Your task to perform on an android device: Clear the shopping cart on ebay. Search for "razer deathadder" on ebay, select the first entry, and add it to the cart. Image 0: 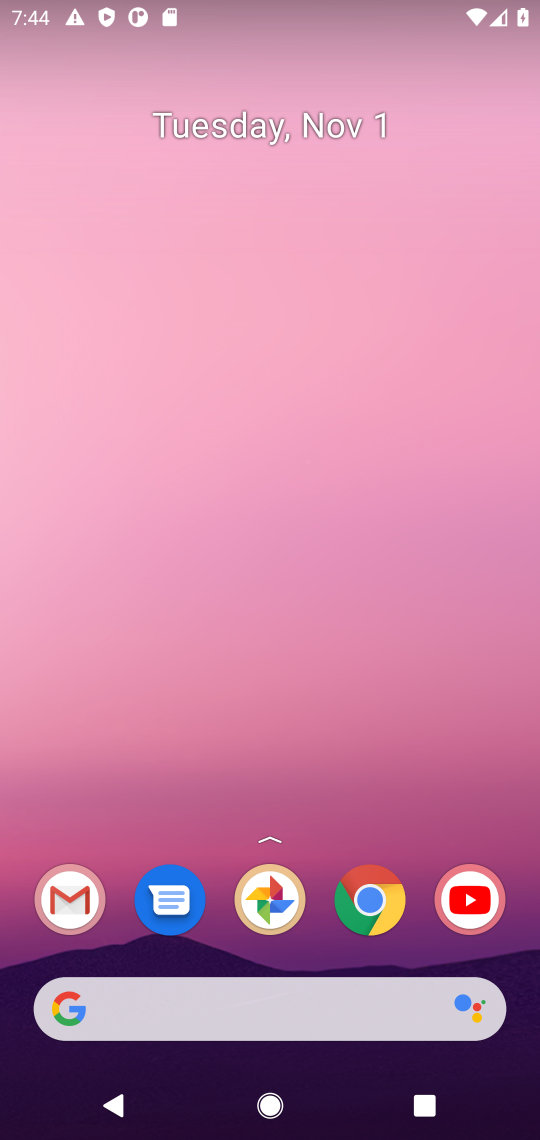
Step 0: drag from (449, 273) to (458, 198)
Your task to perform on an android device: Clear the shopping cart on ebay. Search for "razer deathadder" on ebay, select the first entry, and add it to the cart. Image 1: 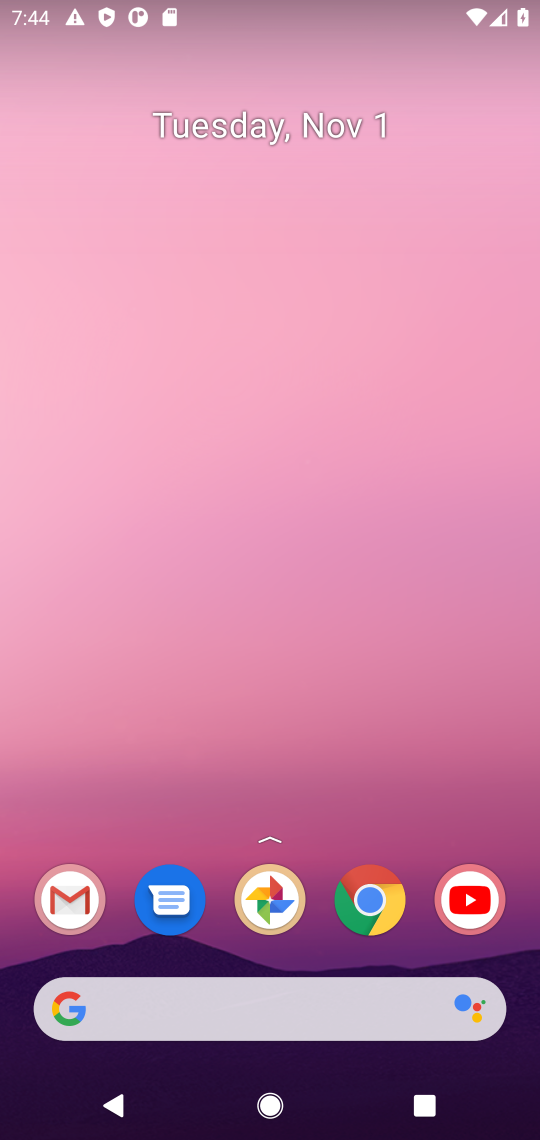
Step 1: drag from (315, 778) to (255, 12)
Your task to perform on an android device: Clear the shopping cart on ebay. Search for "razer deathadder" on ebay, select the first entry, and add it to the cart. Image 2: 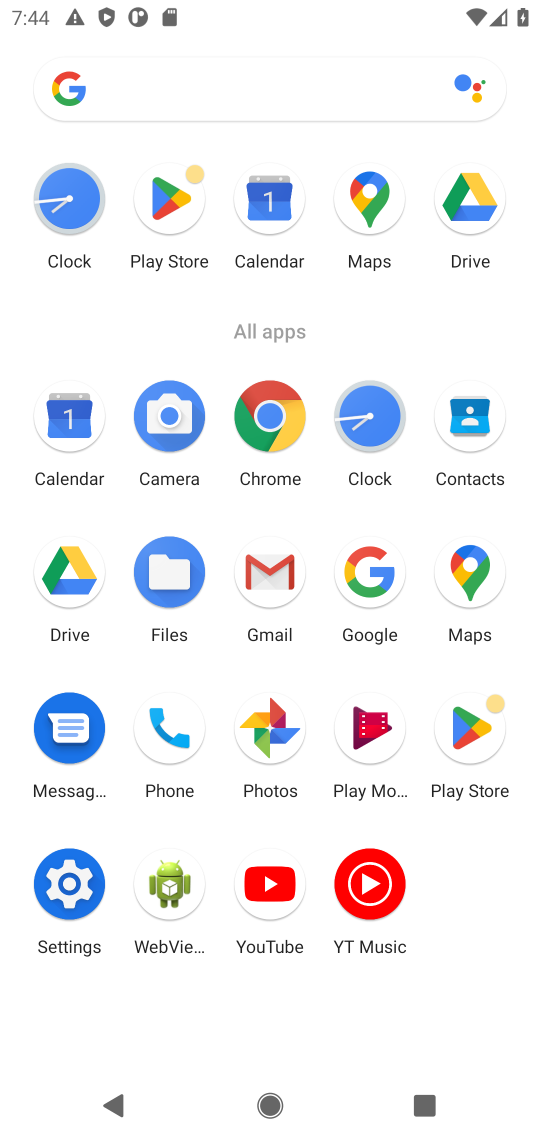
Step 2: click (273, 410)
Your task to perform on an android device: Clear the shopping cart on ebay. Search for "razer deathadder" on ebay, select the first entry, and add it to the cart. Image 3: 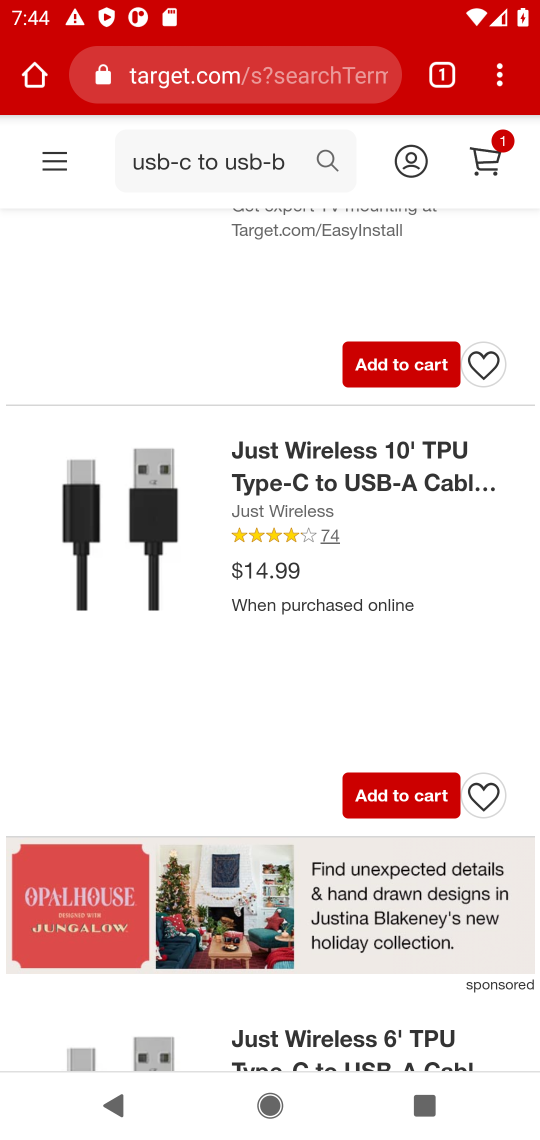
Step 3: click (328, 76)
Your task to perform on an android device: Clear the shopping cart on ebay. Search for "razer deathadder" on ebay, select the first entry, and add it to the cart. Image 4: 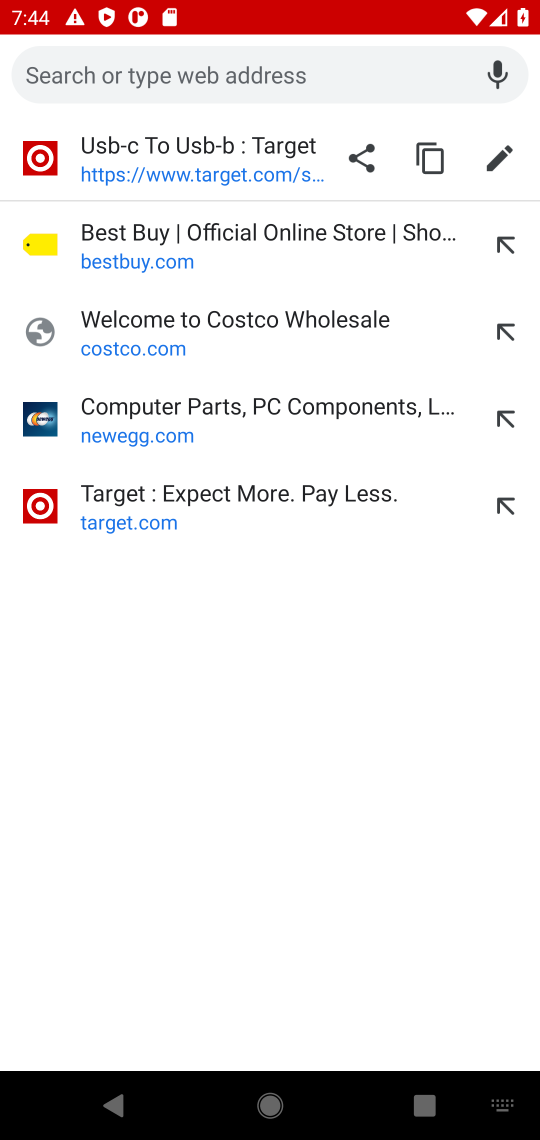
Step 4: type "ebay.com"
Your task to perform on an android device: Clear the shopping cart on ebay. Search for "razer deathadder" on ebay, select the first entry, and add it to the cart. Image 5: 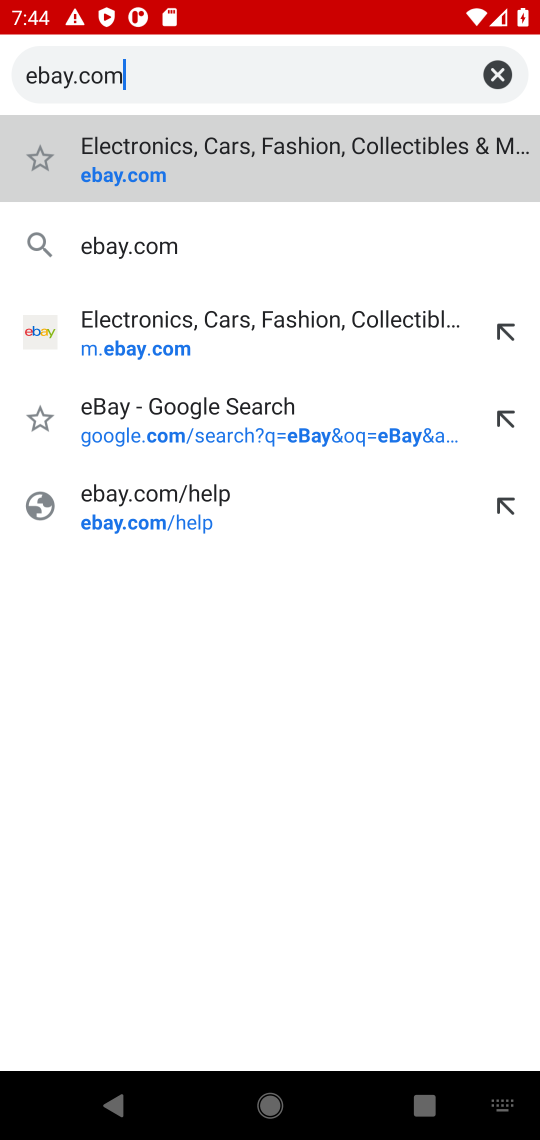
Step 5: click (140, 186)
Your task to perform on an android device: Clear the shopping cart on ebay. Search for "razer deathadder" on ebay, select the first entry, and add it to the cart. Image 6: 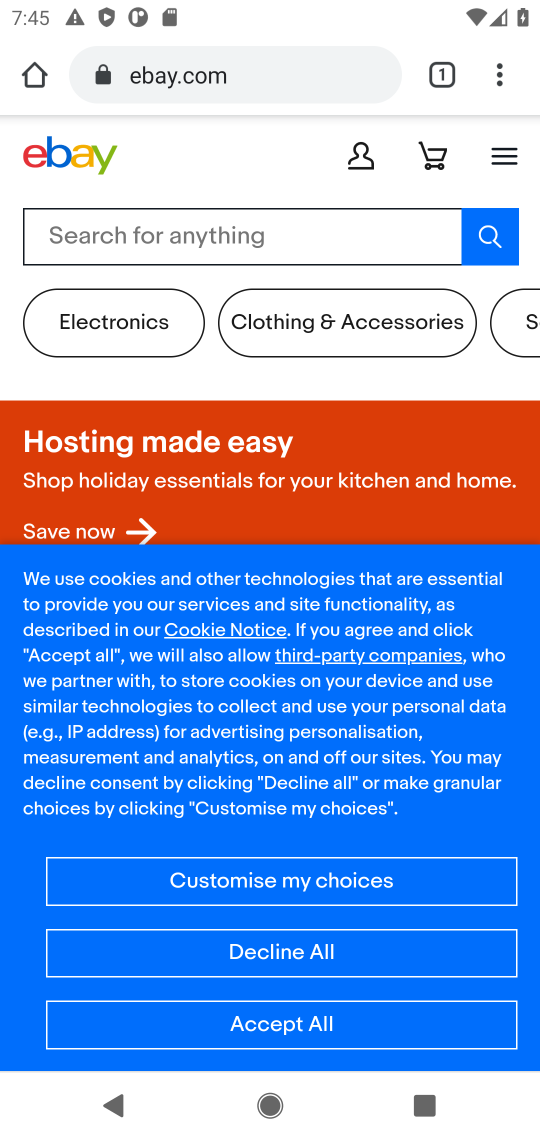
Step 6: click (259, 250)
Your task to perform on an android device: Clear the shopping cart on ebay. Search for "razer deathadder" on ebay, select the first entry, and add it to the cart. Image 7: 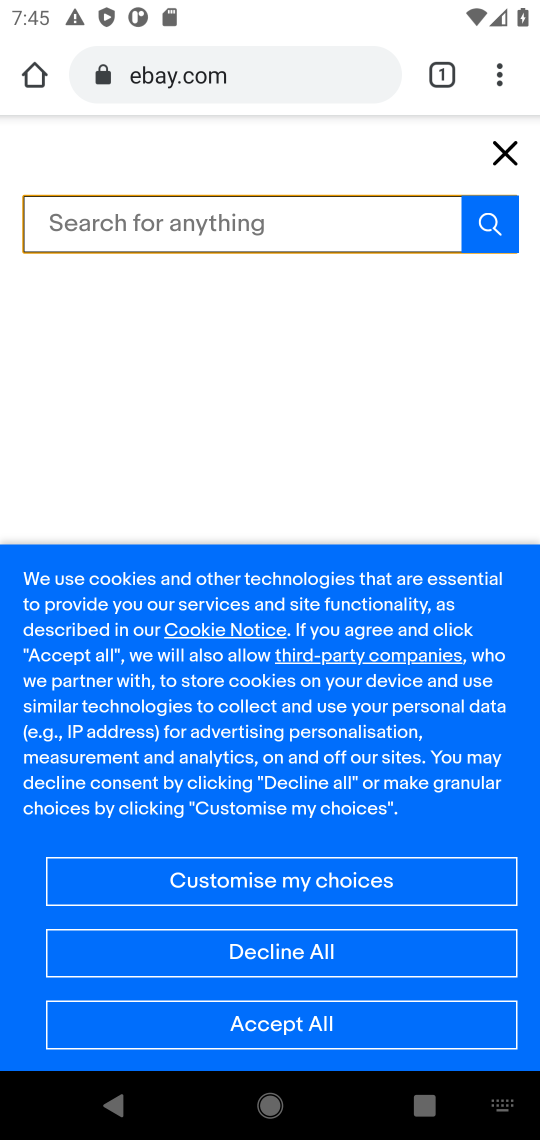
Step 7: type "razer deathhadder"
Your task to perform on an android device: Clear the shopping cart on ebay. Search for "razer deathadder" on ebay, select the first entry, and add it to the cart. Image 8: 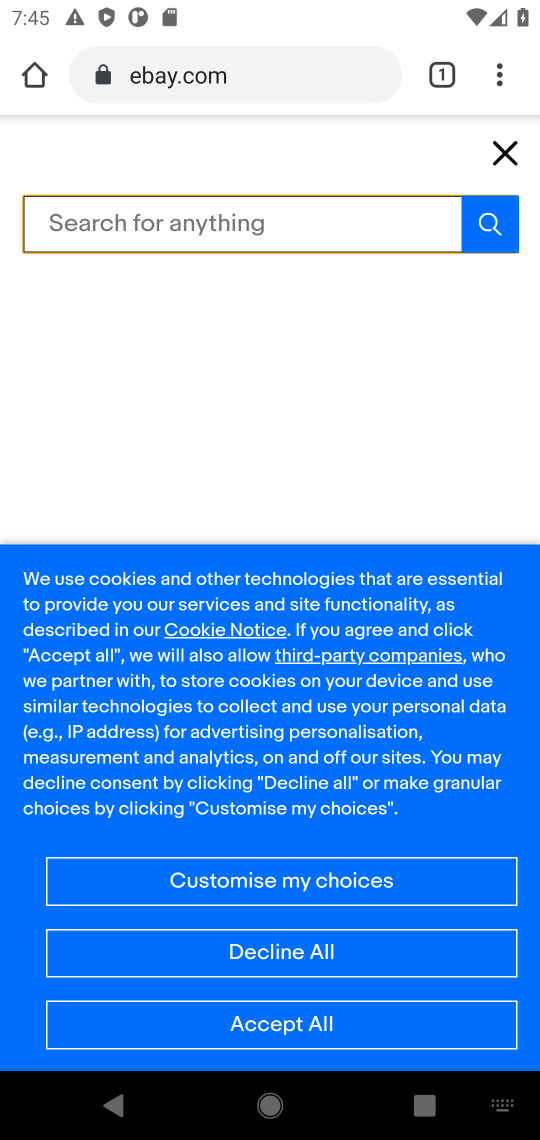
Step 8: click (508, 140)
Your task to perform on an android device: Clear the shopping cart on ebay. Search for "razer deathadder" on ebay, select the first entry, and add it to the cart. Image 9: 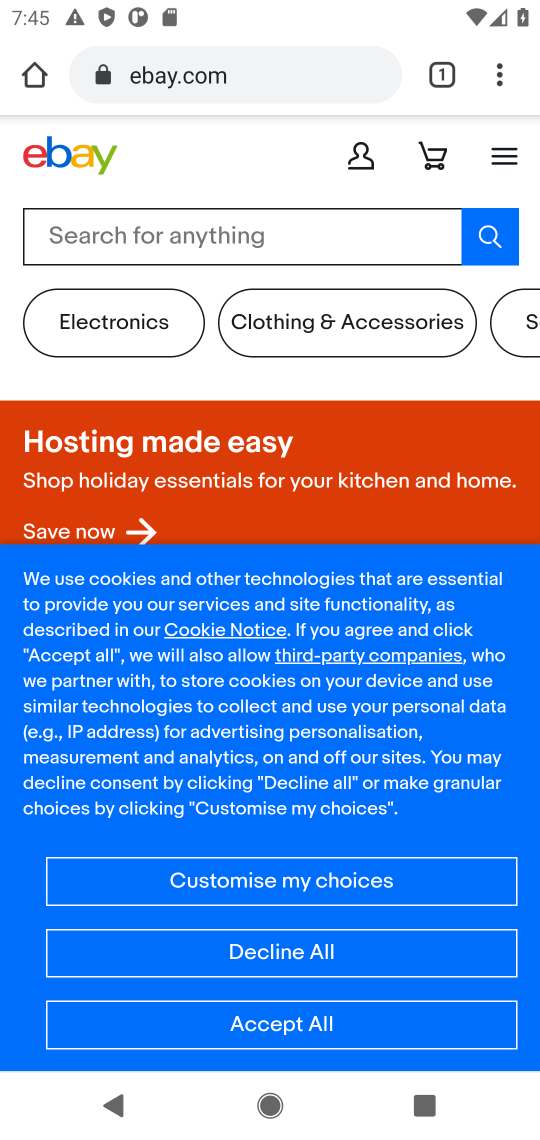
Step 9: click (433, 160)
Your task to perform on an android device: Clear the shopping cart on ebay. Search for "razer deathadder" on ebay, select the first entry, and add it to the cart. Image 10: 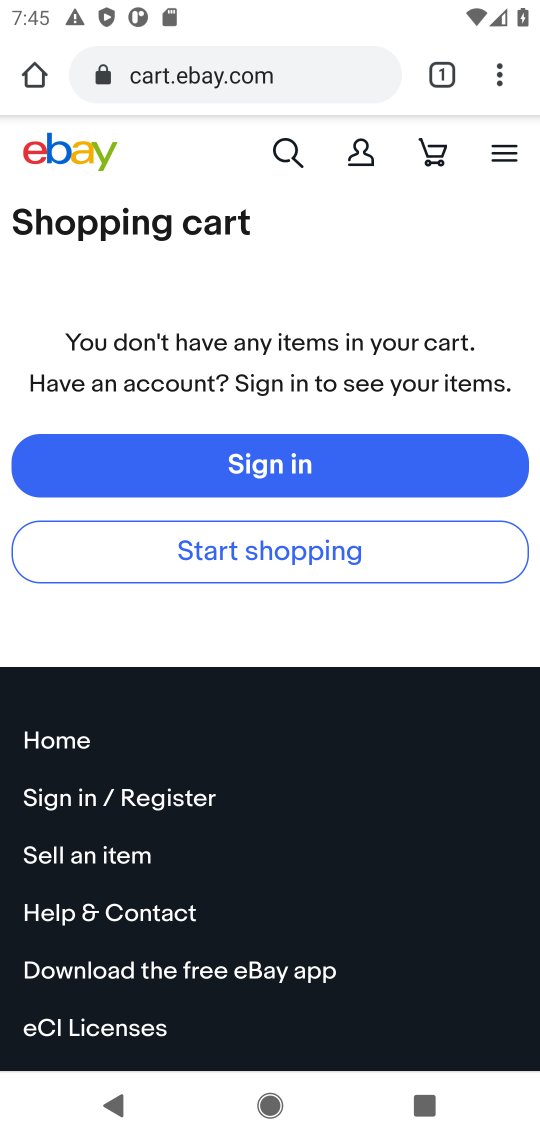
Step 10: click (312, 558)
Your task to perform on an android device: Clear the shopping cart on ebay. Search for "razer deathadder" on ebay, select the first entry, and add it to the cart. Image 11: 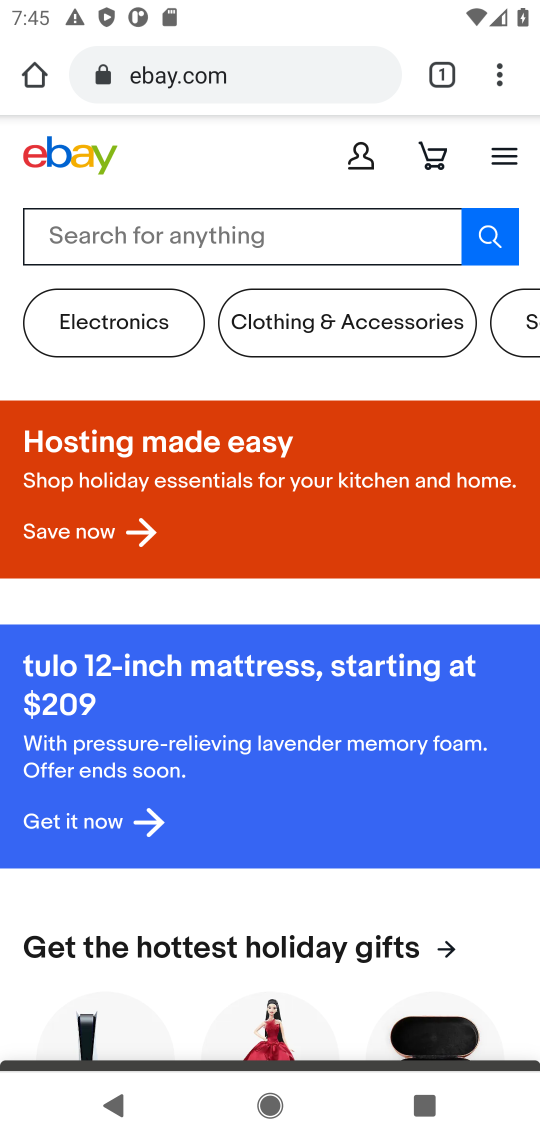
Step 11: click (283, 233)
Your task to perform on an android device: Clear the shopping cart on ebay. Search for "razer deathadder" on ebay, select the first entry, and add it to the cart. Image 12: 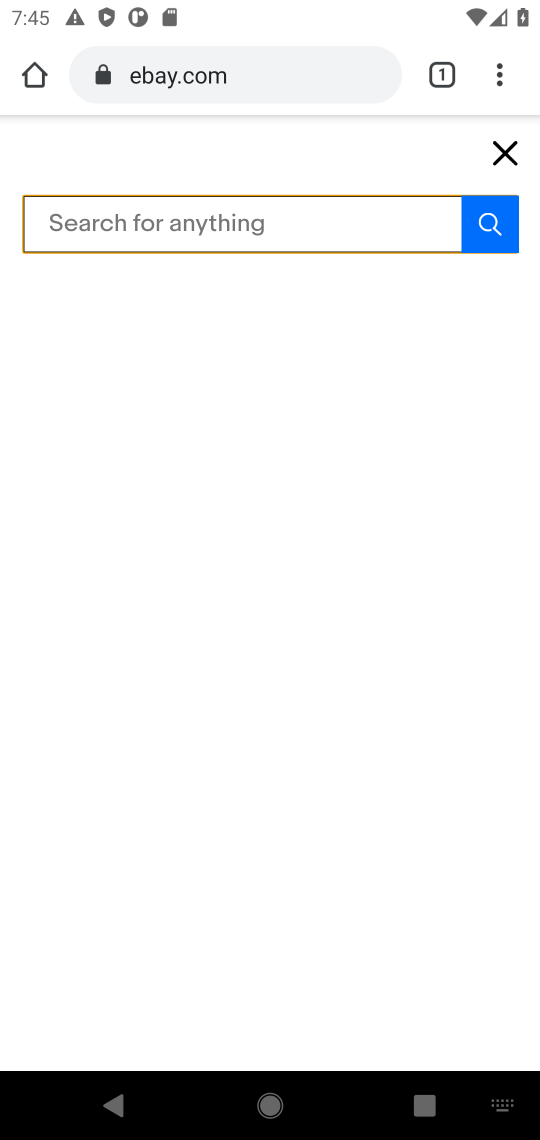
Step 12: type "razer deathadder"
Your task to perform on an android device: Clear the shopping cart on ebay. Search for "razer deathadder" on ebay, select the first entry, and add it to the cart. Image 13: 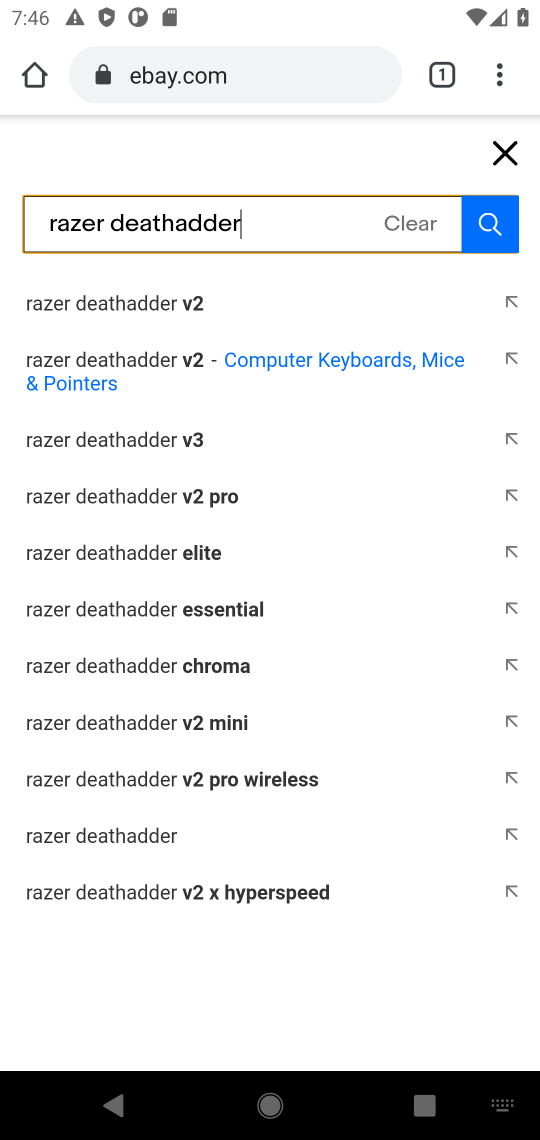
Step 13: click (502, 214)
Your task to perform on an android device: Clear the shopping cart on ebay. Search for "razer deathadder" on ebay, select the first entry, and add it to the cart. Image 14: 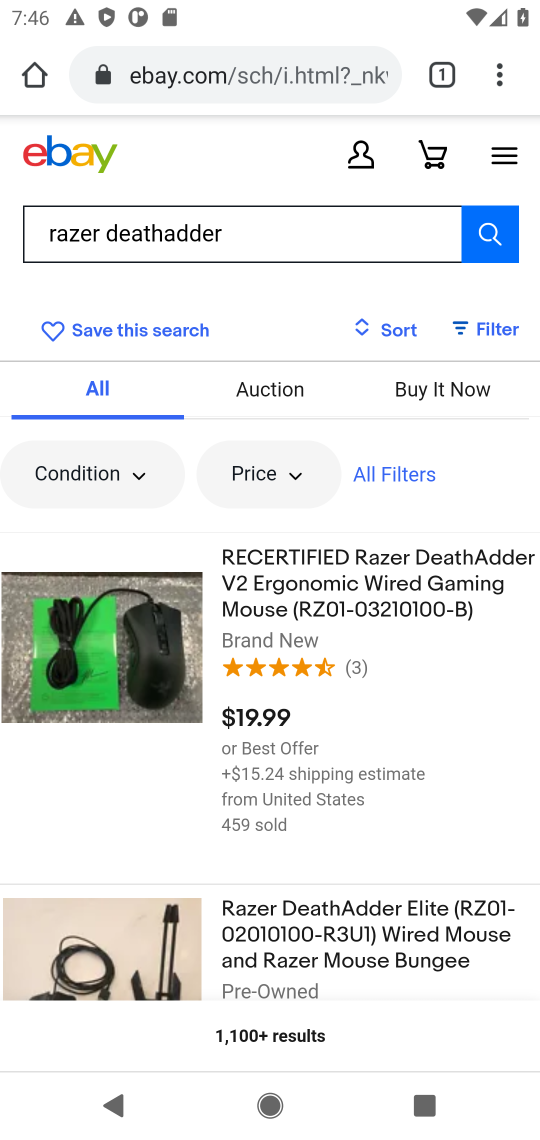
Step 14: click (450, 560)
Your task to perform on an android device: Clear the shopping cart on ebay. Search for "razer deathadder" on ebay, select the first entry, and add it to the cart. Image 15: 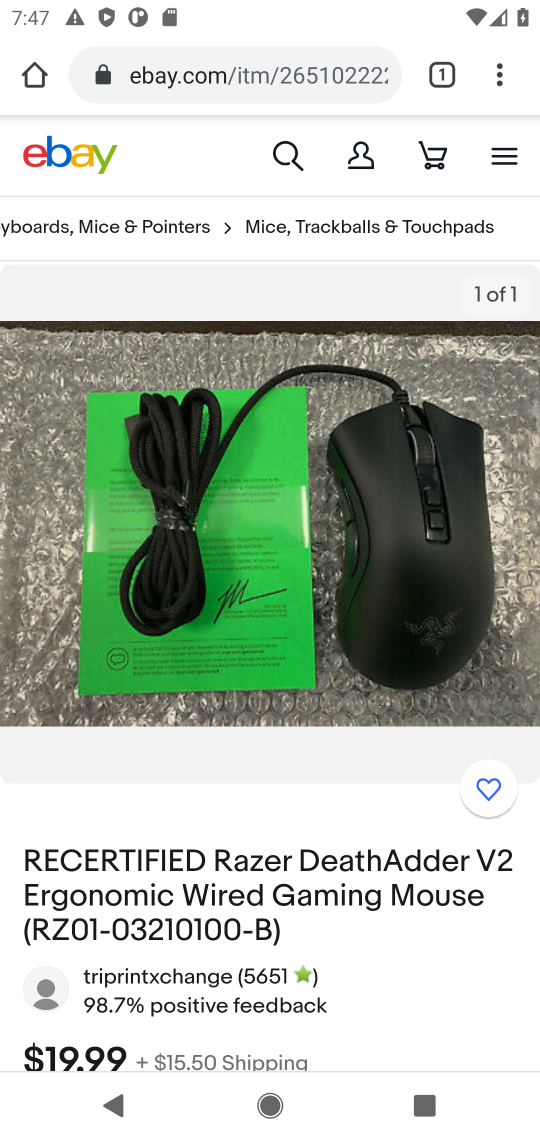
Step 15: drag from (341, 810) to (318, 220)
Your task to perform on an android device: Clear the shopping cart on ebay. Search for "razer deathadder" on ebay, select the first entry, and add it to the cart. Image 16: 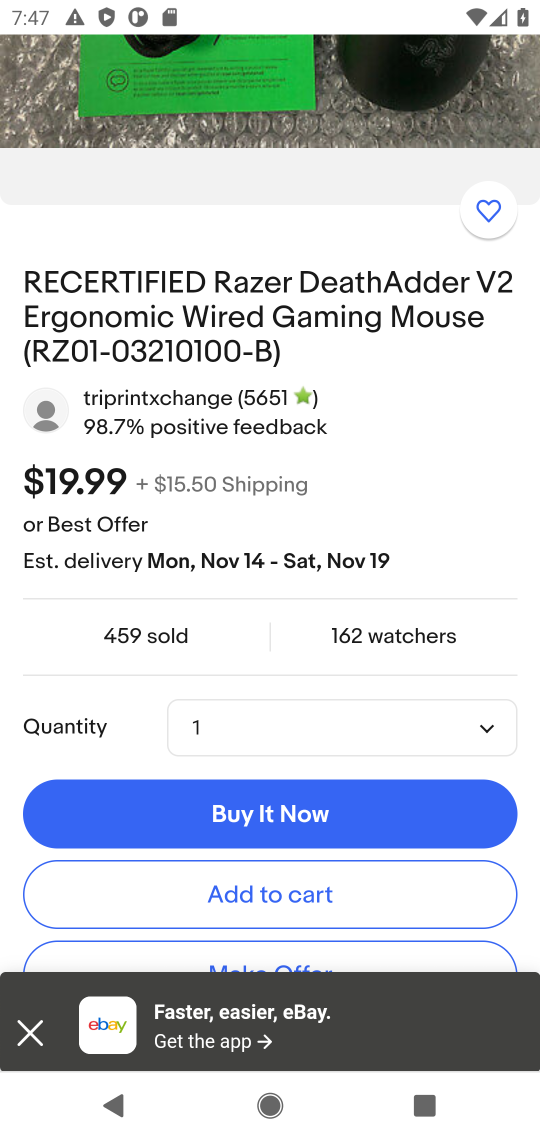
Step 16: click (275, 898)
Your task to perform on an android device: Clear the shopping cart on ebay. Search for "razer deathadder" on ebay, select the first entry, and add it to the cart. Image 17: 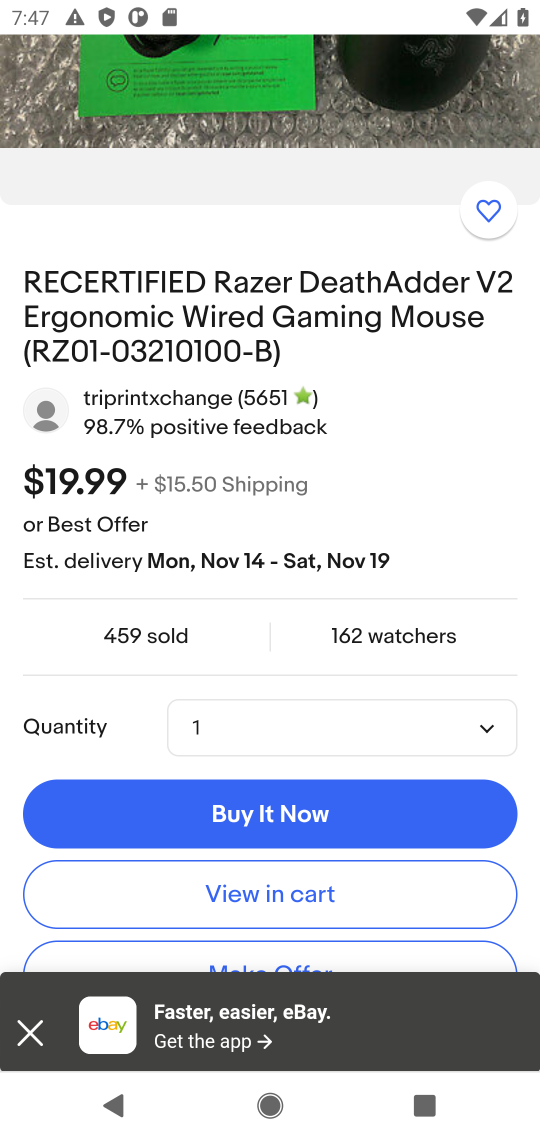
Step 17: task complete